Your task to perform on an android device: toggle data saver in the chrome app Image 0: 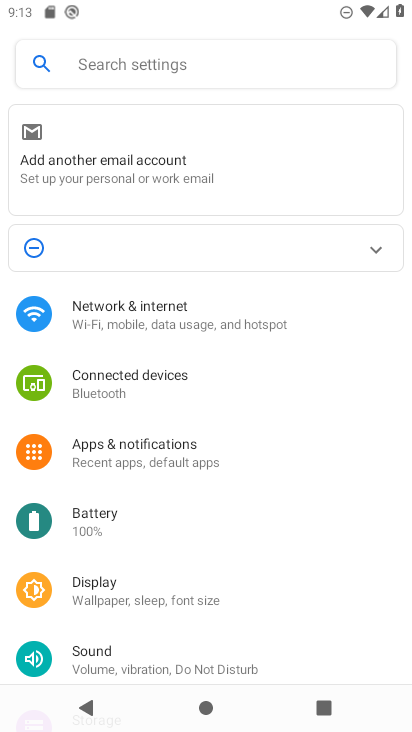
Step 0: press home button
Your task to perform on an android device: toggle data saver in the chrome app Image 1: 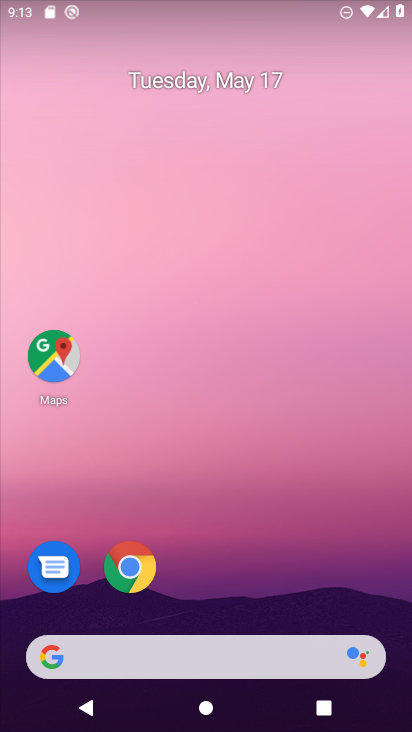
Step 1: click (126, 582)
Your task to perform on an android device: toggle data saver in the chrome app Image 2: 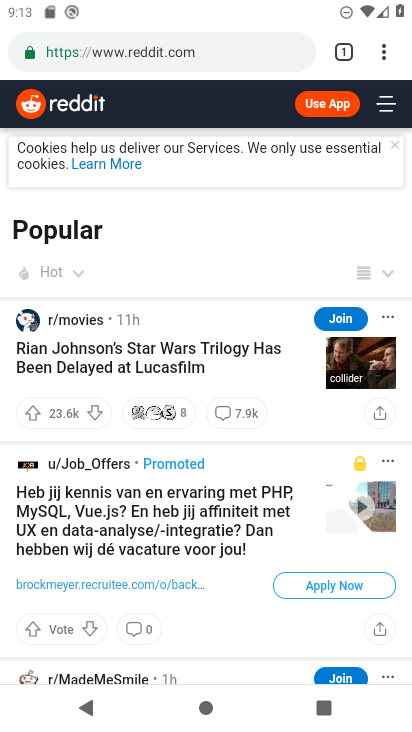
Step 2: drag from (389, 59) to (264, 603)
Your task to perform on an android device: toggle data saver in the chrome app Image 3: 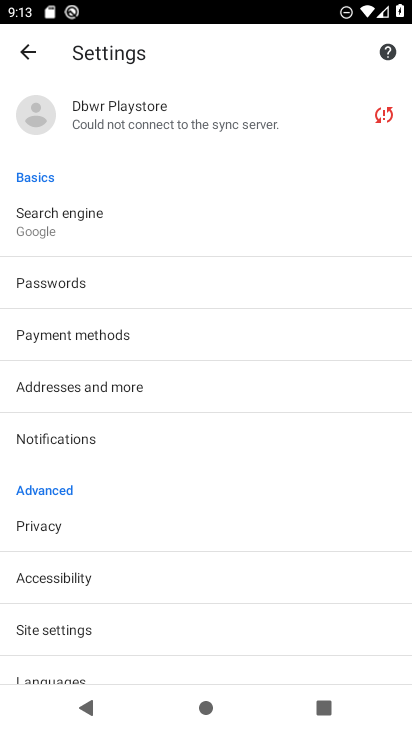
Step 3: drag from (143, 645) to (313, 203)
Your task to perform on an android device: toggle data saver in the chrome app Image 4: 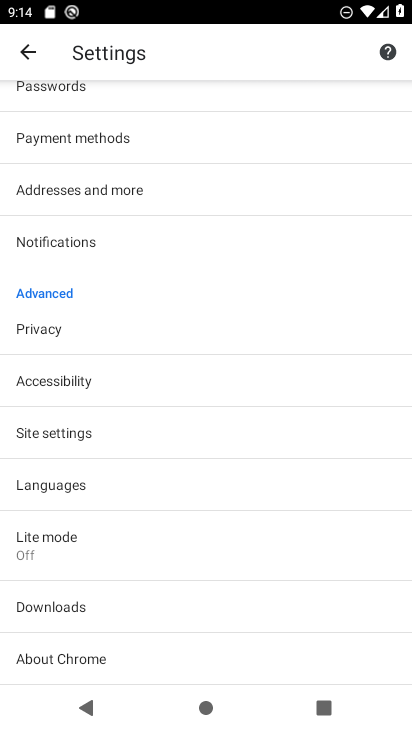
Step 4: click (106, 546)
Your task to perform on an android device: toggle data saver in the chrome app Image 5: 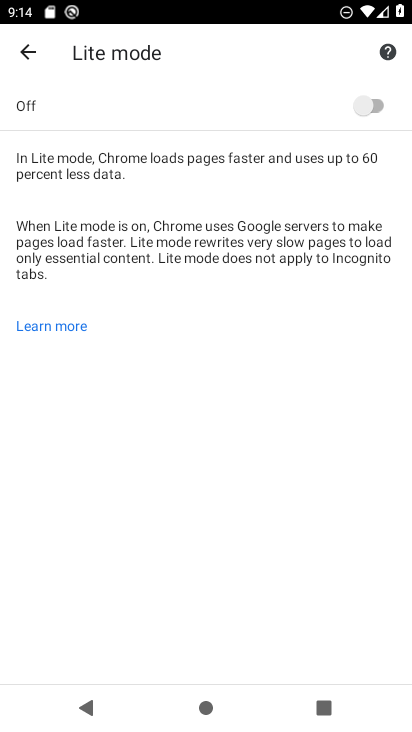
Step 5: click (394, 104)
Your task to perform on an android device: toggle data saver in the chrome app Image 6: 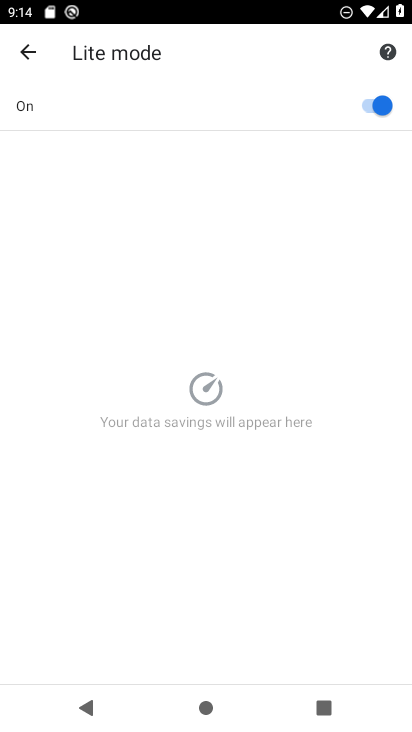
Step 6: task complete